Your task to perform on an android device: turn off smart reply in the gmail app Image 0: 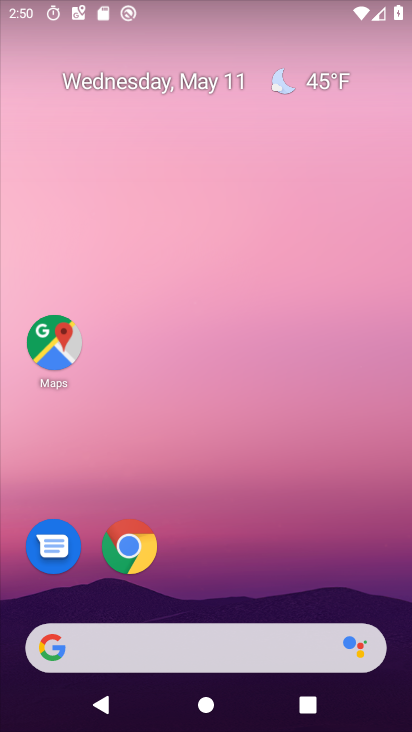
Step 0: drag from (278, 551) to (404, 376)
Your task to perform on an android device: turn off smart reply in the gmail app Image 1: 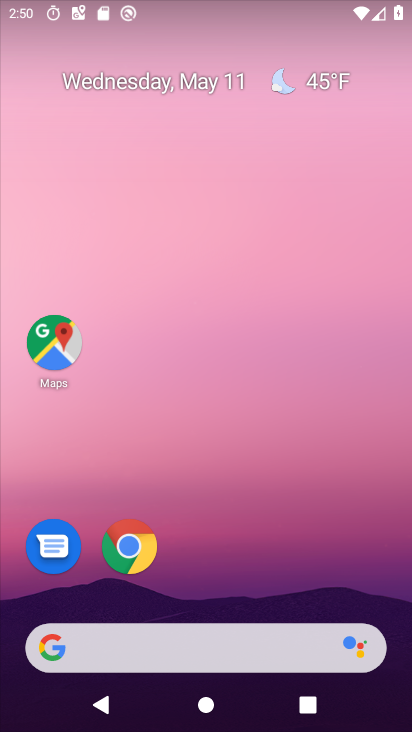
Step 1: drag from (217, 603) to (398, 219)
Your task to perform on an android device: turn off smart reply in the gmail app Image 2: 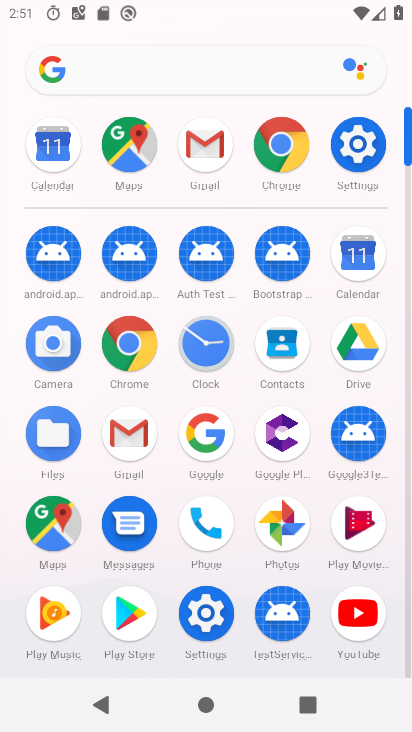
Step 2: click (99, 426)
Your task to perform on an android device: turn off smart reply in the gmail app Image 3: 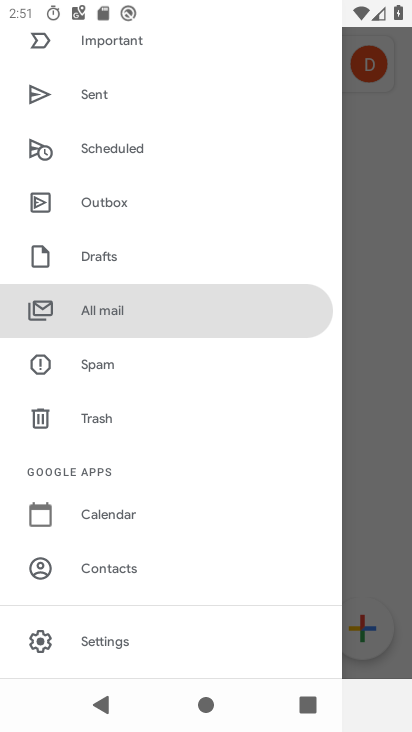
Step 3: drag from (93, 648) to (219, 187)
Your task to perform on an android device: turn off smart reply in the gmail app Image 4: 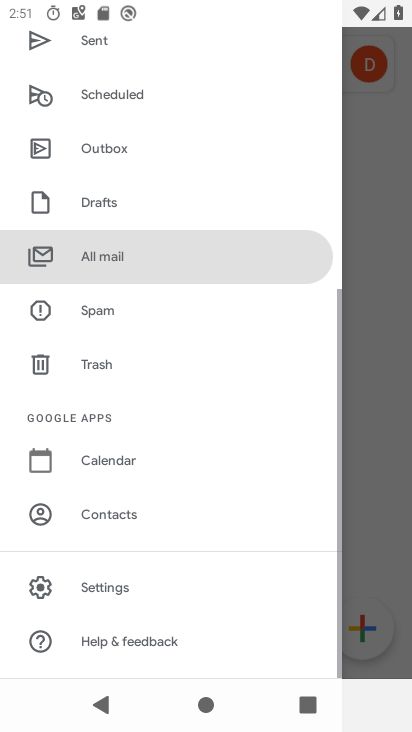
Step 4: click (117, 599)
Your task to perform on an android device: turn off smart reply in the gmail app Image 5: 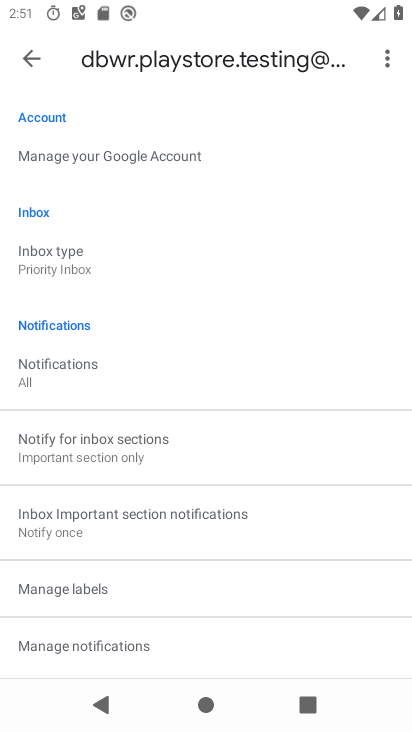
Step 5: drag from (195, 506) to (284, 39)
Your task to perform on an android device: turn off smart reply in the gmail app Image 6: 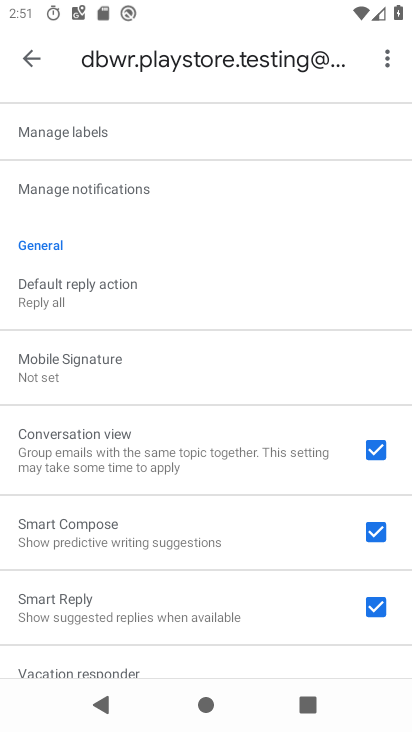
Step 6: drag from (219, 575) to (279, 113)
Your task to perform on an android device: turn off smart reply in the gmail app Image 7: 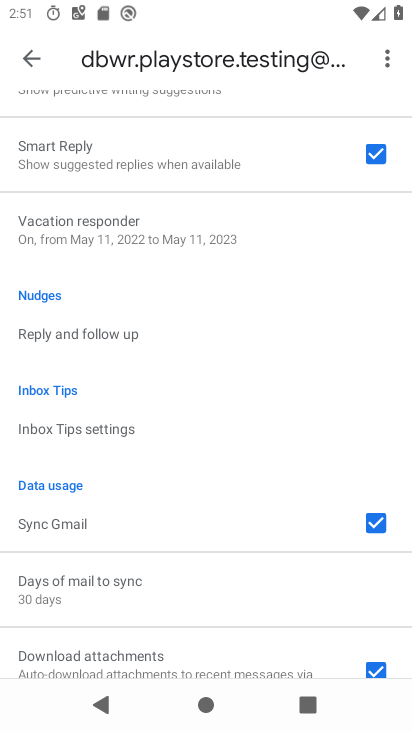
Step 7: drag from (242, 550) to (321, 122)
Your task to perform on an android device: turn off smart reply in the gmail app Image 8: 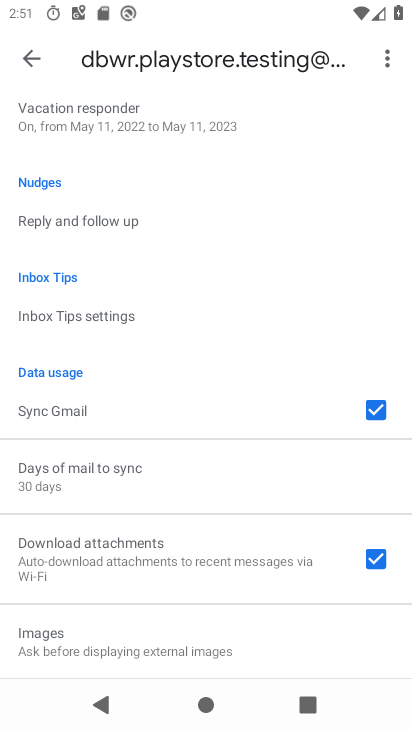
Step 8: drag from (240, 567) to (287, 199)
Your task to perform on an android device: turn off smart reply in the gmail app Image 9: 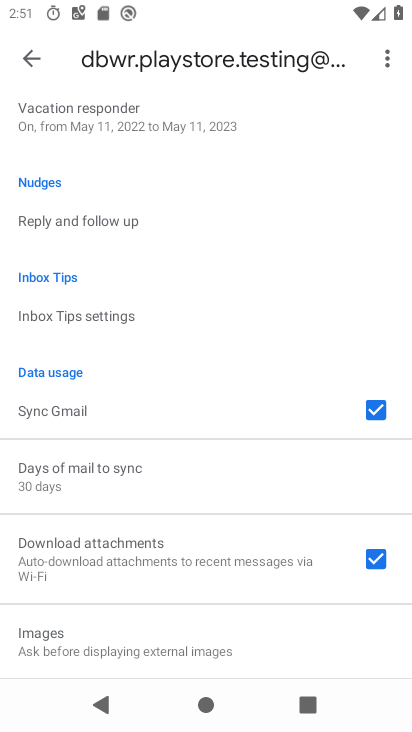
Step 9: drag from (277, 574) to (304, 48)
Your task to perform on an android device: turn off smart reply in the gmail app Image 10: 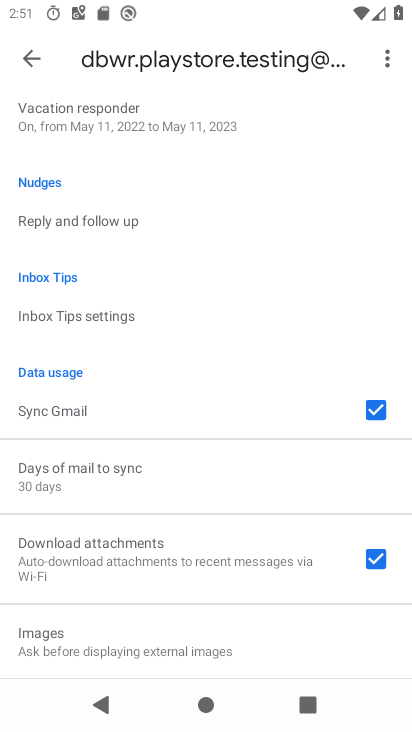
Step 10: drag from (205, 561) to (264, 6)
Your task to perform on an android device: turn off smart reply in the gmail app Image 11: 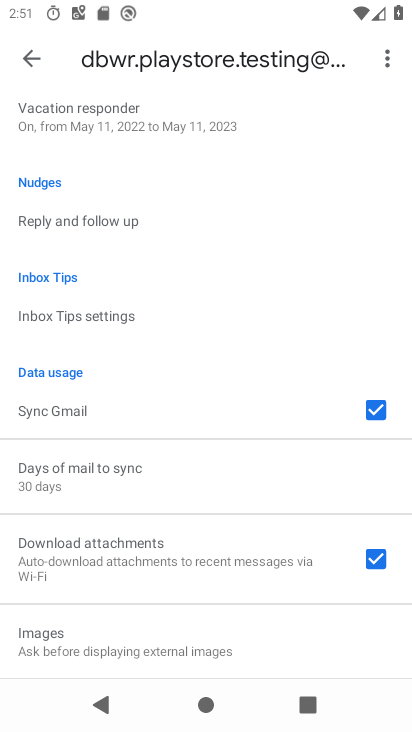
Step 11: drag from (216, 627) to (257, 106)
Your task to perform on an android device: turn off smart reply in the gmail app Image 12: 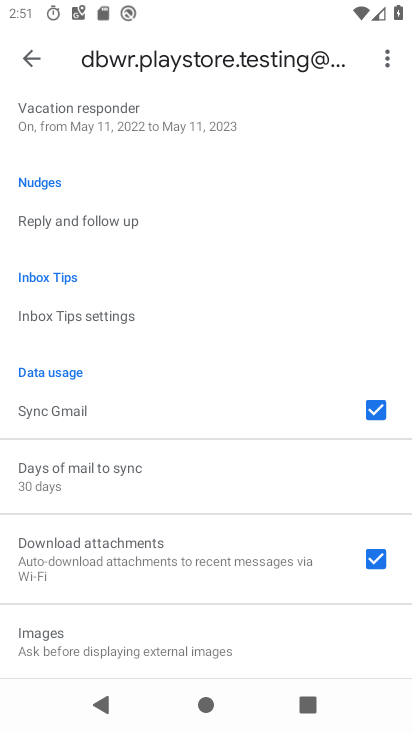
Step 12: drag from (250, 560) to (257, 146)
Your task to perform on an android device: turn off smart reply in the gmail app Image 13: 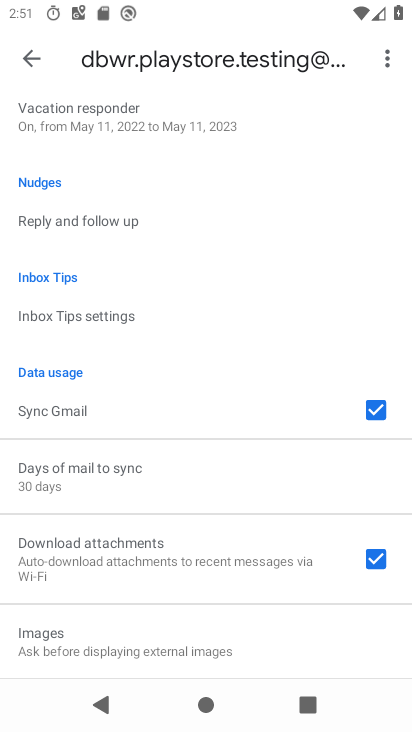
Step 13: drag from (262, 542) to (397, 13)
Your task to perform on an android device: turn off smart reply in the gmail app Image 14: 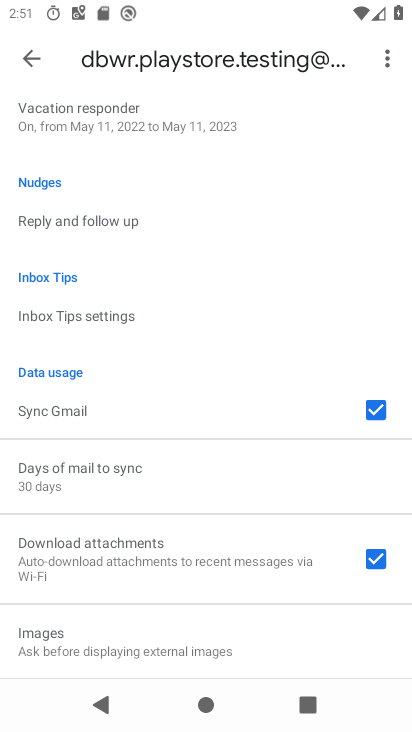
Step 14: drag from (263, 618) to (271, 216)
Your task to perform on an android device: turn off smart reply in the gmail app Image 15: 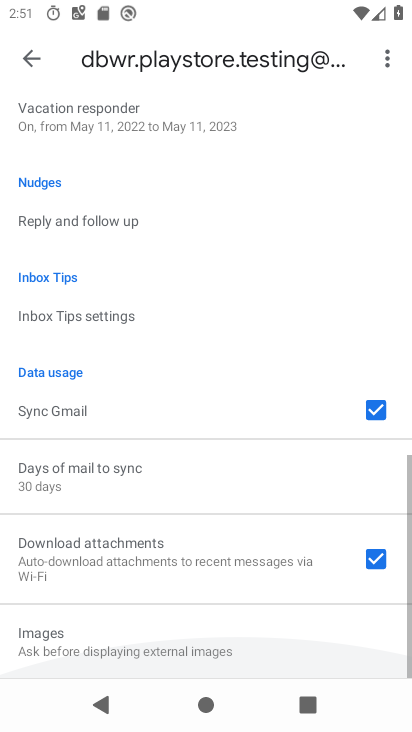
Step 15: drag from (263, 208) to (232, 377)
Your task to perform on an android device: turn off smart reply in the gmail app Image 16: 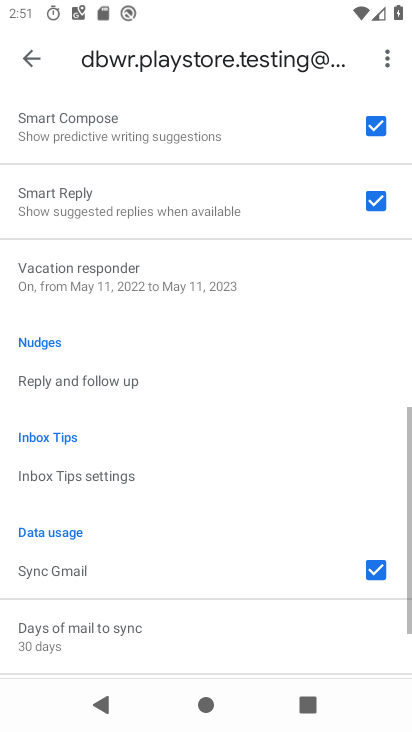
Step 16: drag from (231, 238) to (233, 443)
Your task to perform on an android device: turn off smart reply in the gmail app Image 17: 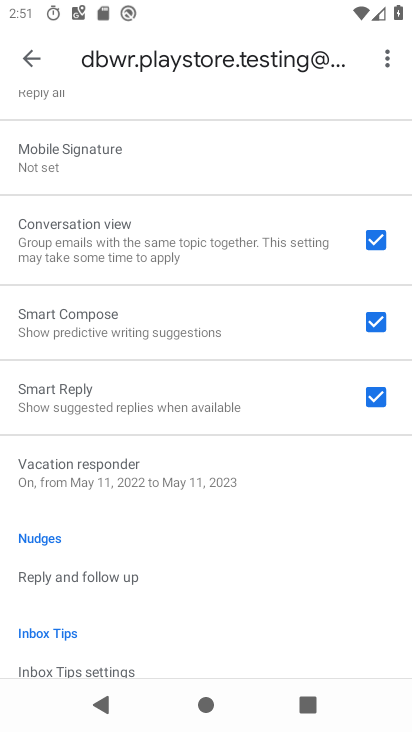
Step 17: click (384, 404)
Your task to perform on an android device: turn off smart reply in the gmail app Image 18: 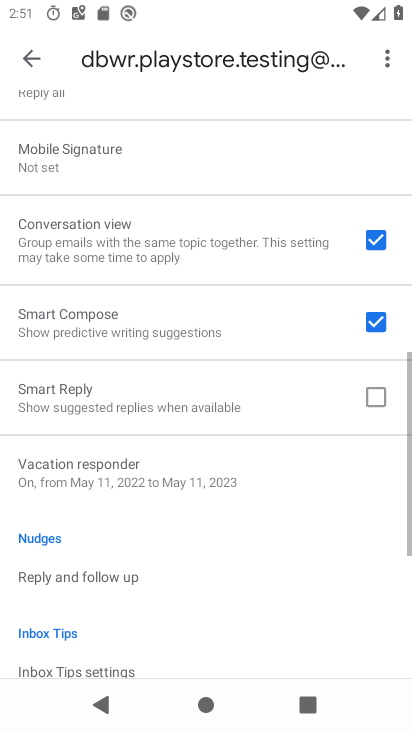
Step 18: task complete